Your task to perform on an android device: Open battery settings Image 0: 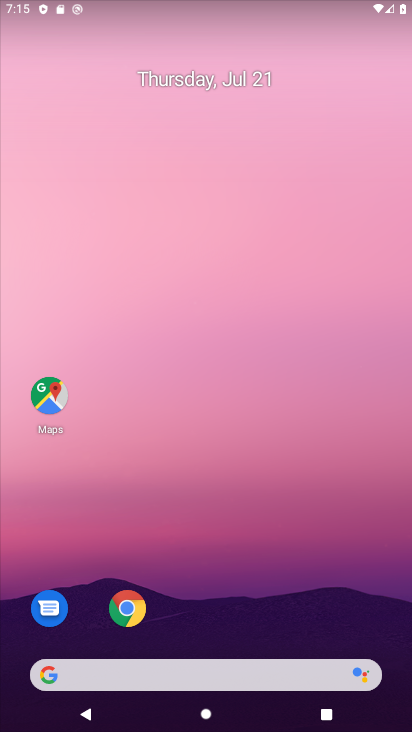
Step 0: drag from (199, 666) to (219, 87)
Your task to perform on an android device: Open battery settings Image 1: 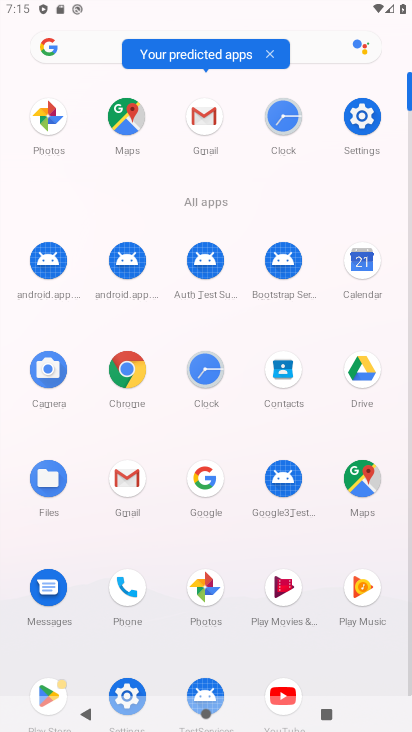
Step 1: click (362, 115)
Your task to perform on an android device: Open battery settings Image 2: 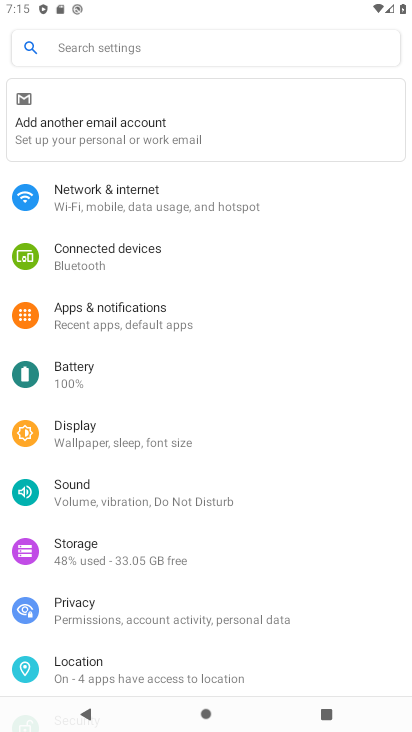
Step 2: click (72, 379)
Your task to perform on an android device: Open battery settings Image 3: 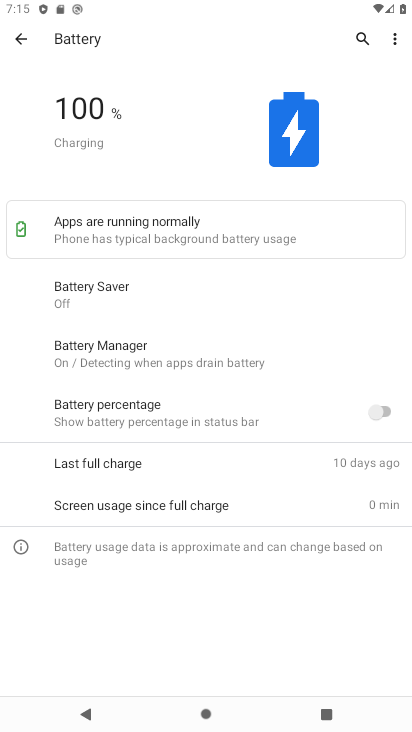
Step 3: task complete